Your task to perform on an android device: stop showing notifications on the lock screen Image 0: 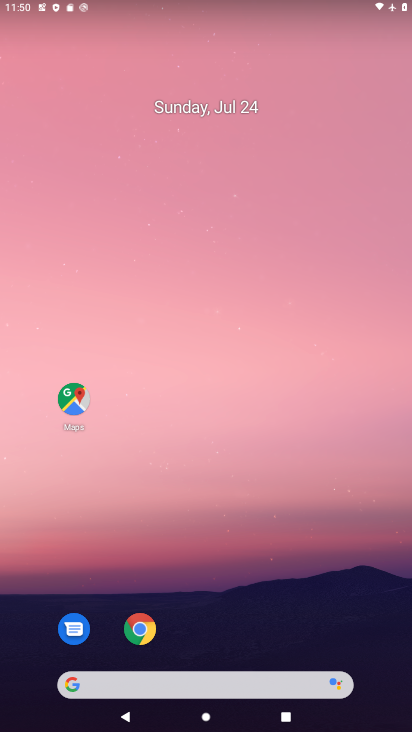
Step 0: drag from (225, 642) to (263, 198)
Your task to perform on an android device: stop showing notifications on the lock screen Image 1: 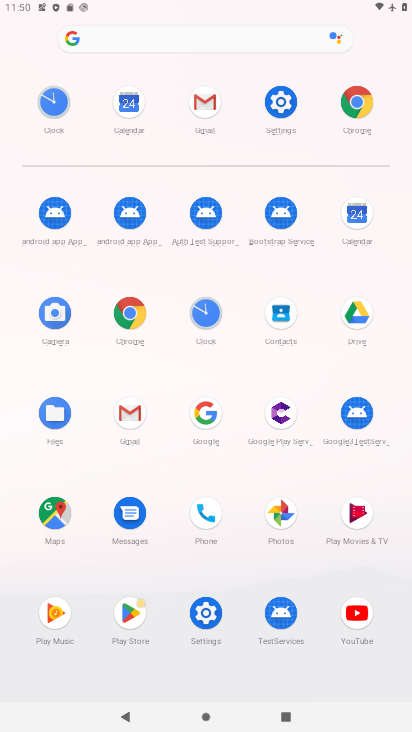
Step 1: task complete